Your task to perform on an android device: turn off translation in the chrome app Image 0: 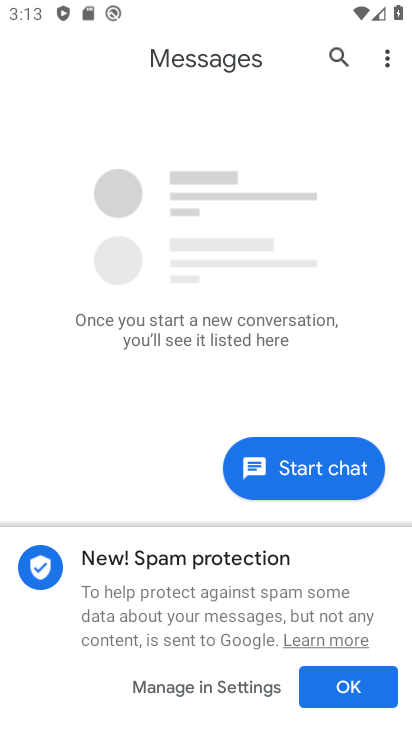
Step 0: press home button
Your task to perform on an android device: turn off translation in the chrome app Image 1: 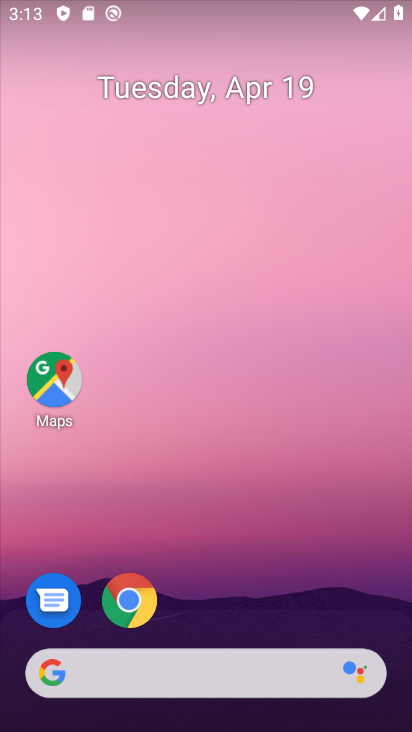
Step 1: click (140, 586)
Your task to perform on an android device: turn off translation in the chrome app Image 2: 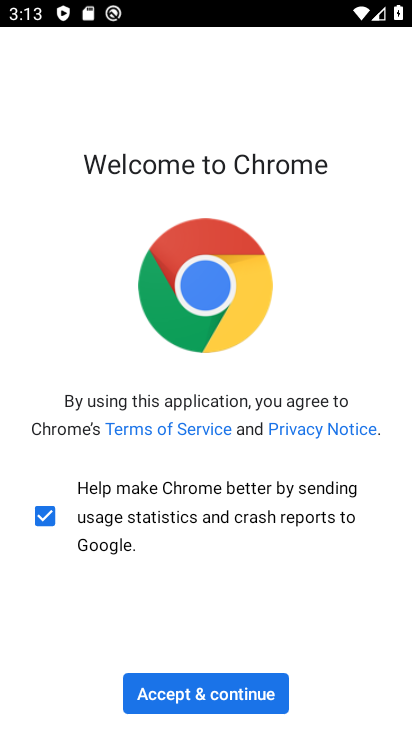
Step 2: click (196, 700)
Your task to perform on an android device: turn off translation in the chrome app Image 3: 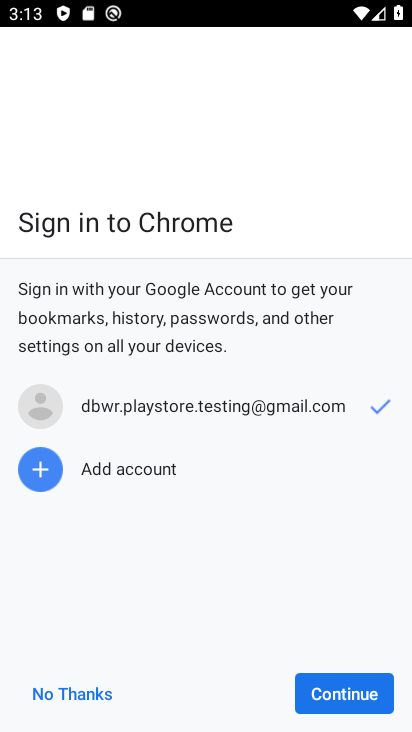
Step 3: click (316, 698)
Your task to perform on an android device: turn off translation in the chrome app Image 4: 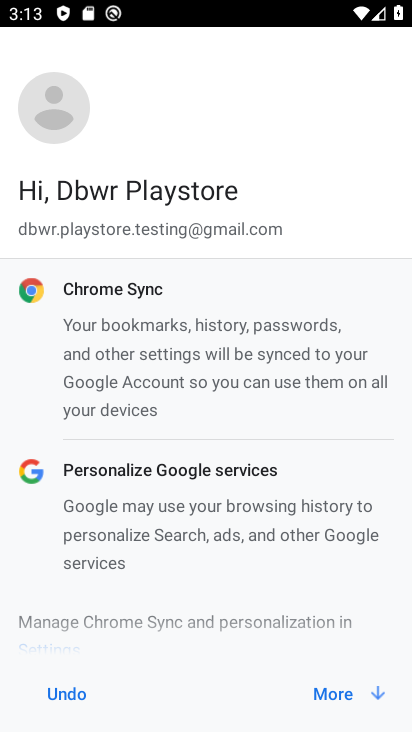
Step 4: click (316, 698)
Your task to perform on an android device: turn off translation in the chrome app Image 5: 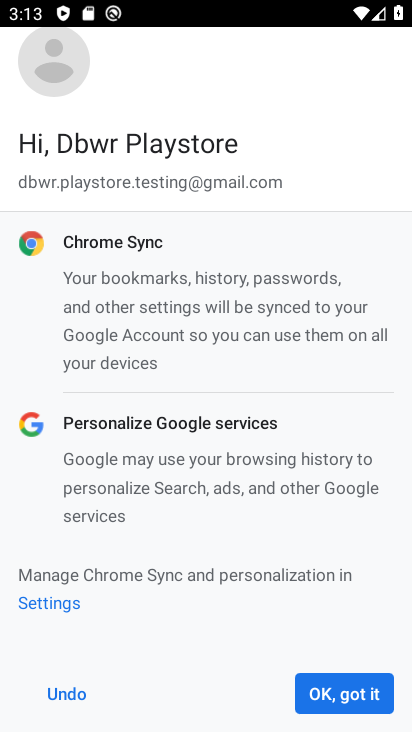
Step 5: click (316, 698)
Your task to perform on an android device: turn off translation in the chrome app Image 6: 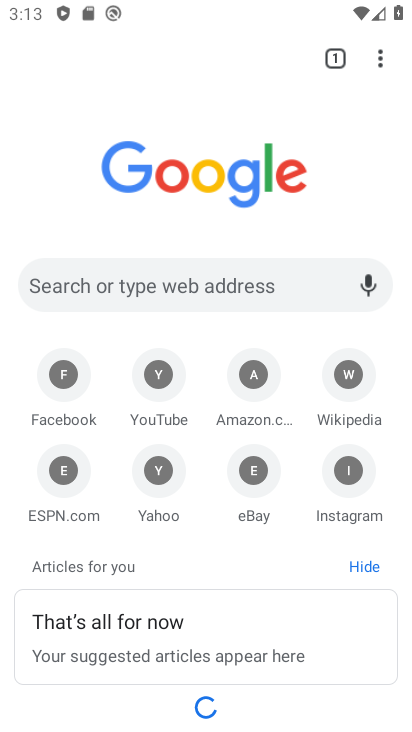
Step 6: click (384, 67)
Your task to perform on an android device: turn off translation in the chrome app Image 7: 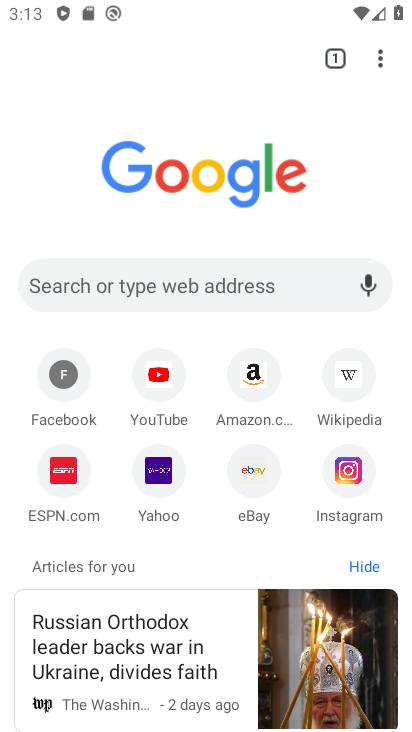
Step 7: click (384, 58)
Your task to perform on an android device: turn off translation in the chrome app Image 8: 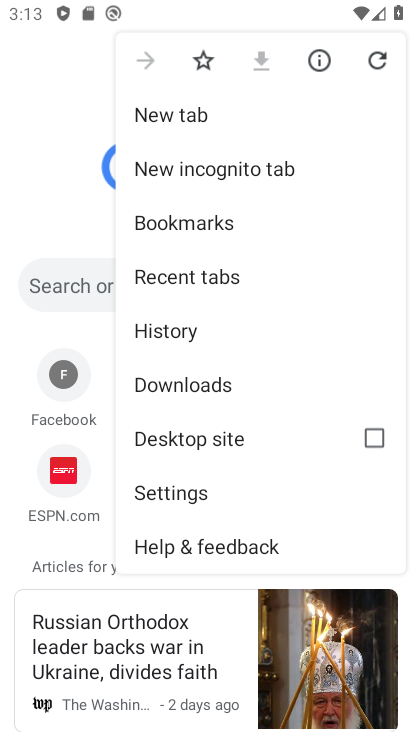
Step 8: click (168, 499)
Your task to perform on an android device: turn off translation in the chrome app Image 9: 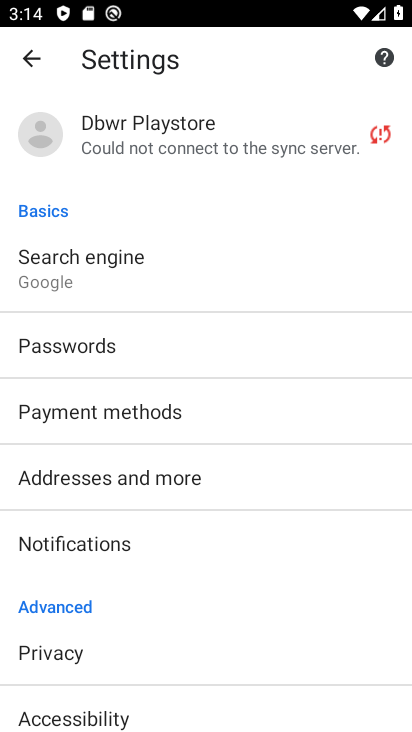
Step 9: drag from (120, 614) to (130, 187)
Your task to perform on an android device: turn off translation in the chrome app Image 10: 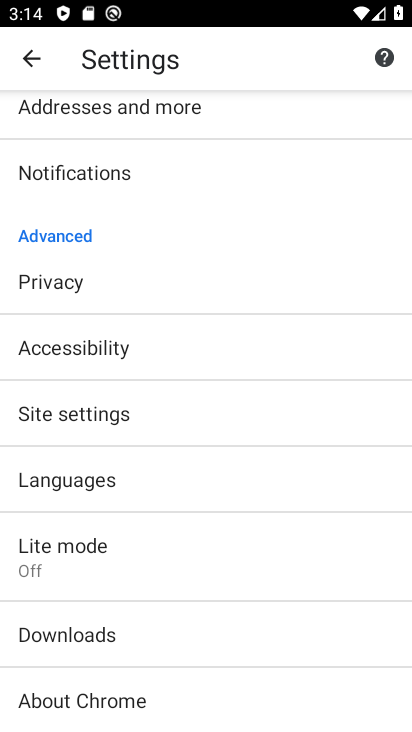
Step 10: drag from (122, 617) to (148, 263)
Your task to perform on an android device: turn off translation in the chrome app Image 11: 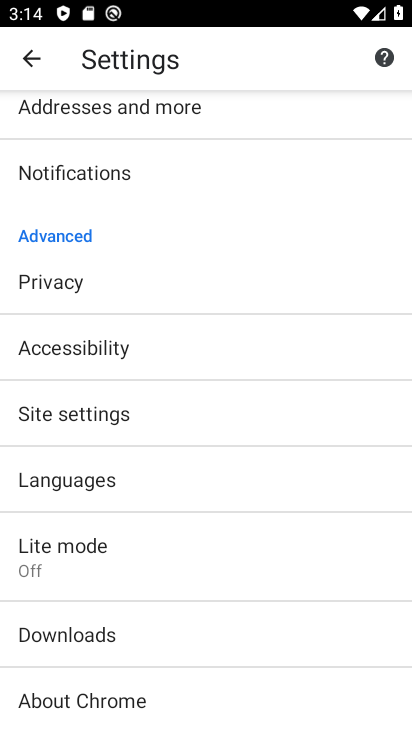
Step 11: click (137, 471)
Your task to perform on an android device: turn off translation in the chrome app Image 12: 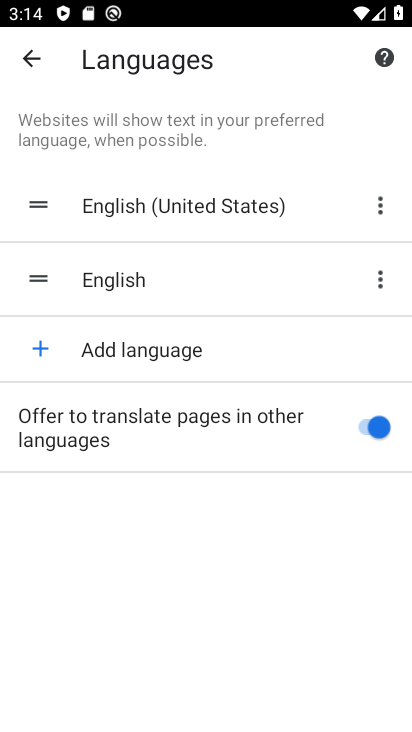
Step 12: click (375, 422)
Your task to perform on an android device: turn off translation in the chrome app Image 13: 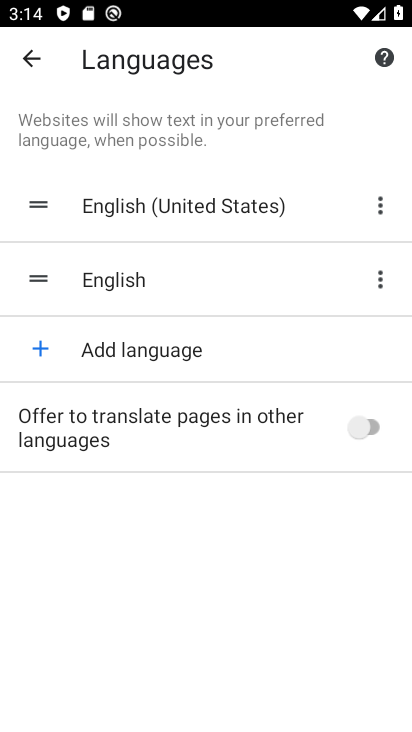
Step 13: task complete